Your task to perform on an android device: install app "Google Photos" Image 0: 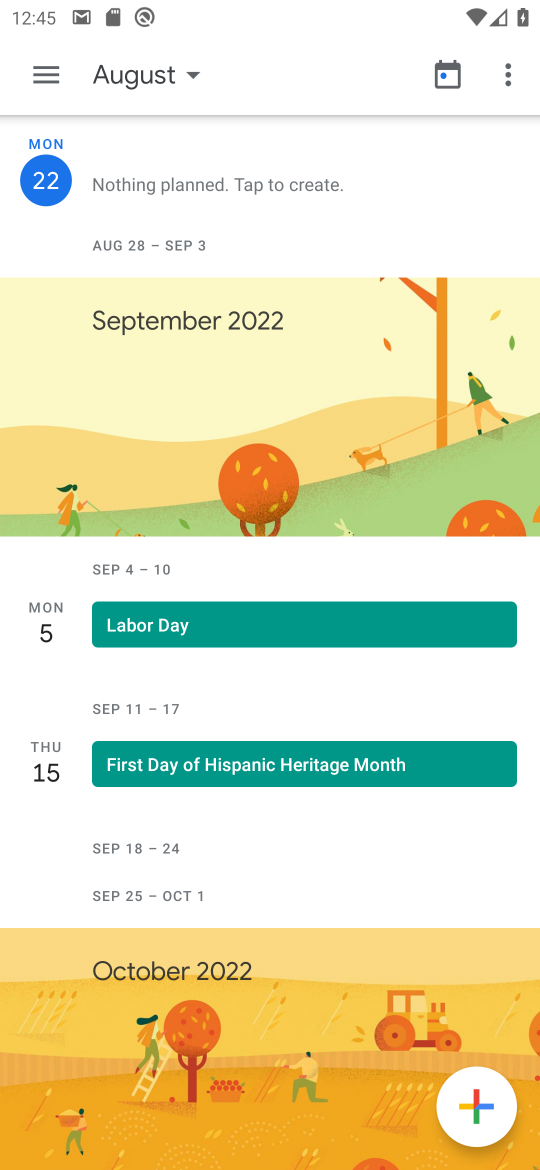
Step 0: press home button
Your task to perform on an android device: install app "Google Photos" Image 1: 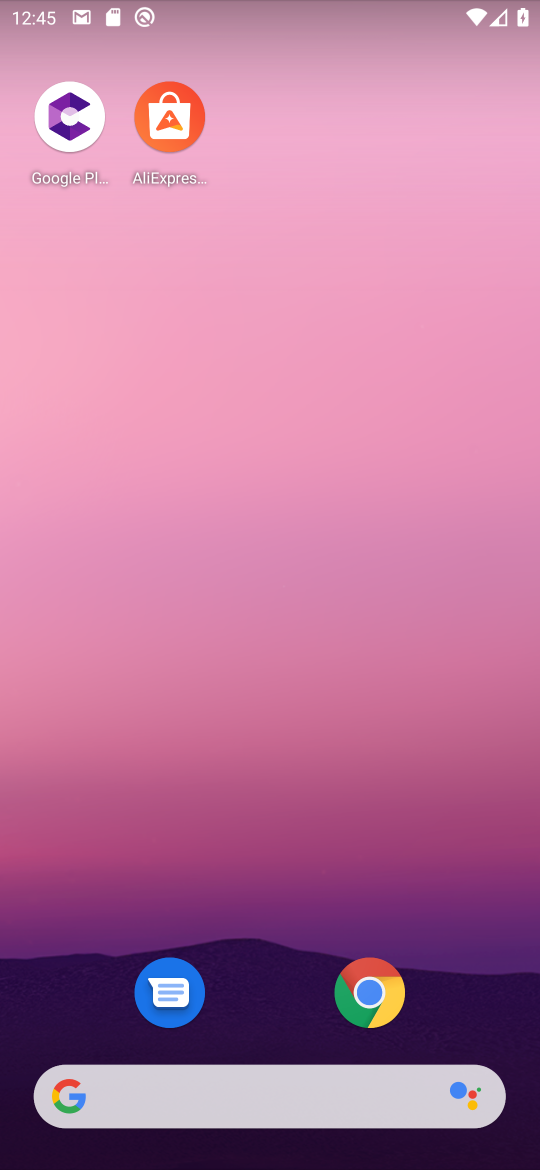
Step 1: drag from (254, 1027) to (361, 423)
Your task to perform on an android device: install app "Google Photos" Image 2: 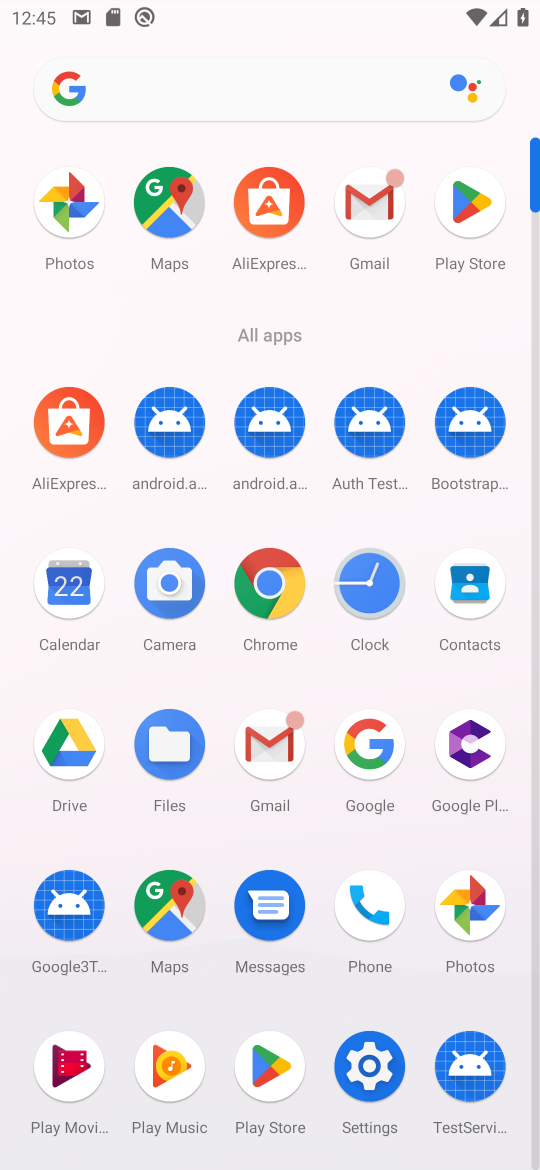
Step 2: click (277, 1075)
Your task to perform on an android device: install app "Google Photos" Image 3: 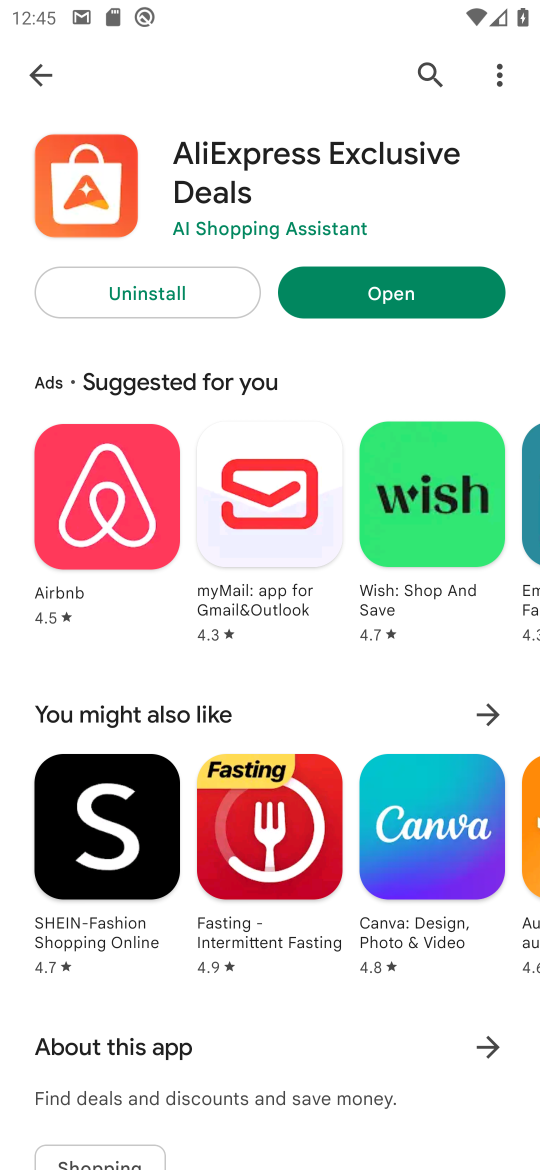
Step 3: click (35, 74)
Your task to perform on an android device: install app "Google Photos" Image 4: 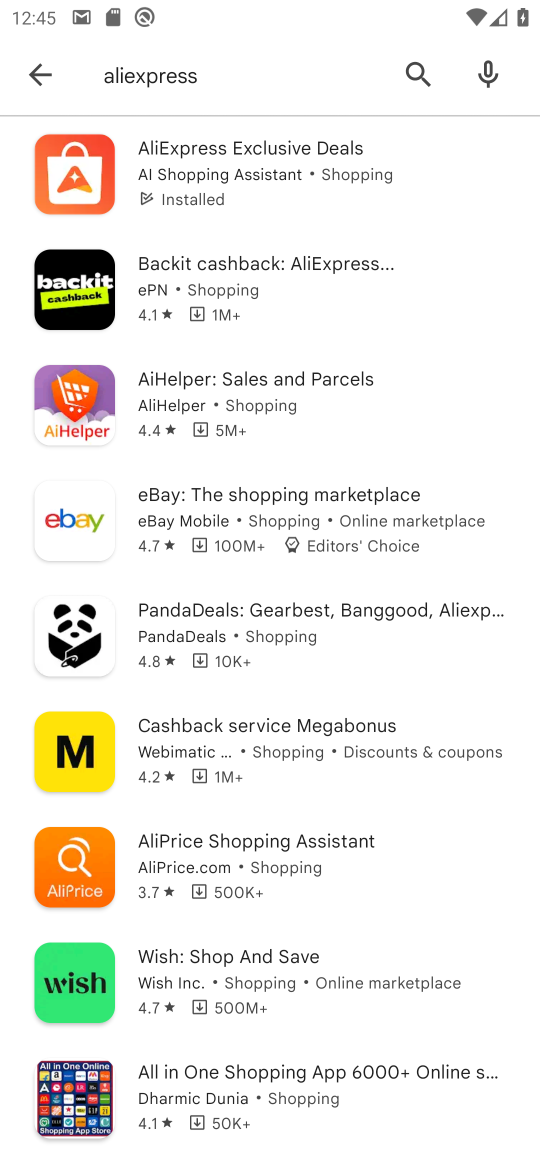
Step 4: click (413, 71)
Your task to perform on an android device: install app "Google Photos" Image 5: 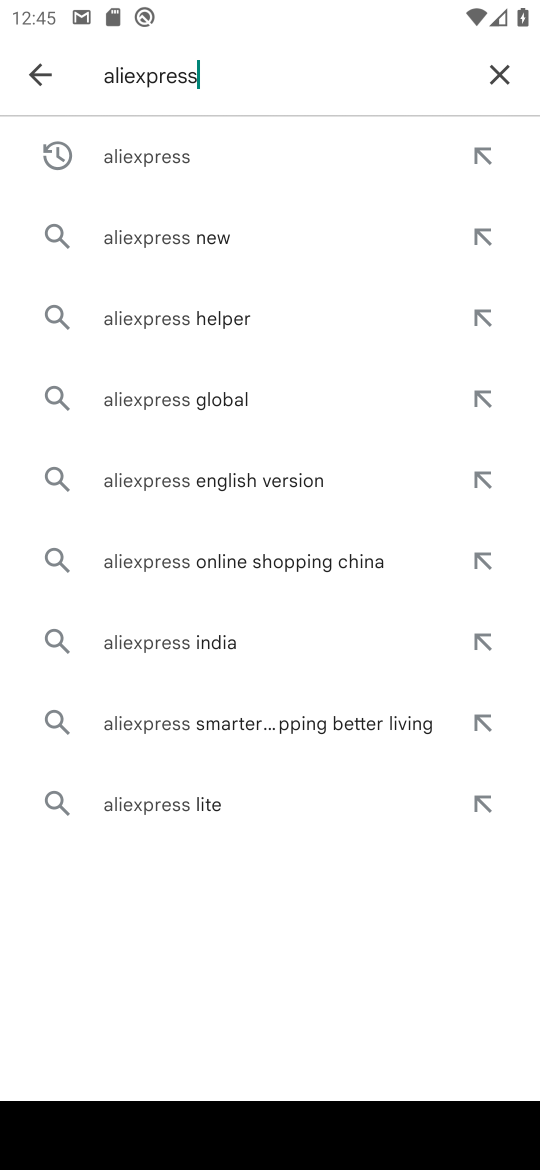
Step 5: click (493, 76)
Your task to perform on an android device: install app "Google Photos" Image 6: 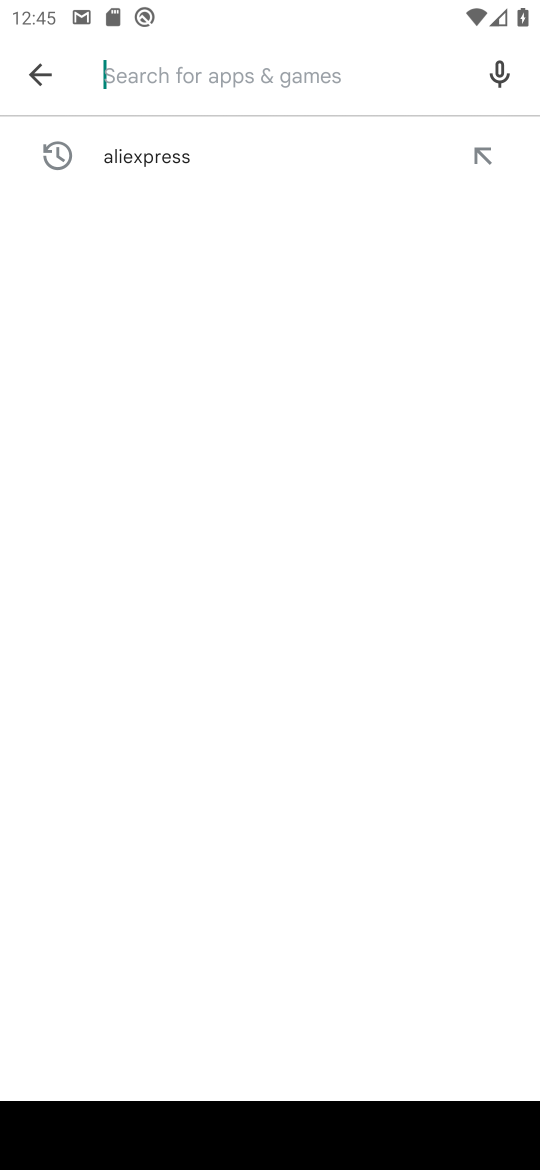
Step 6: type "Google Photos"
Your task to perform on an android device: install app "Google Photos" Image 7: 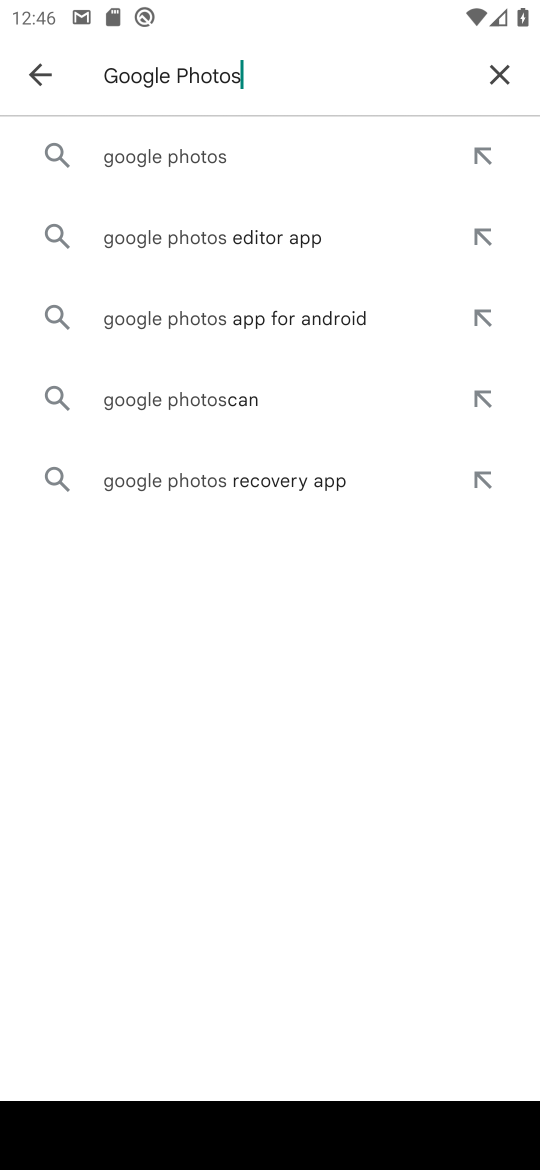
Step 7: click (153, 149)
Your task to perform on an android device: install app "Google Photos" Image 8: 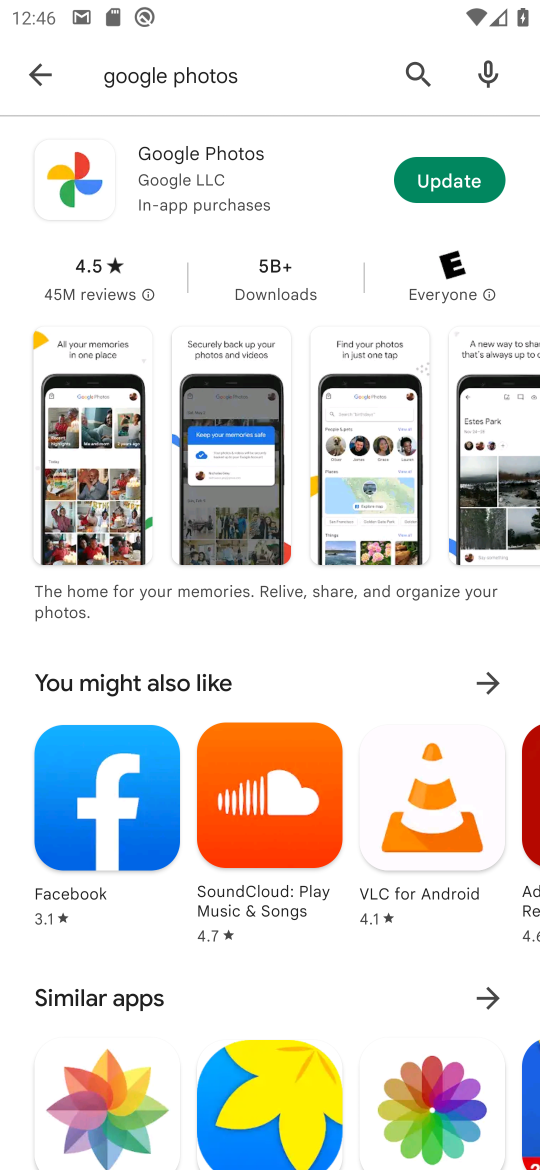
Step 8: task complete